Your task to perform on an android device: Go to internet settings Image 0: 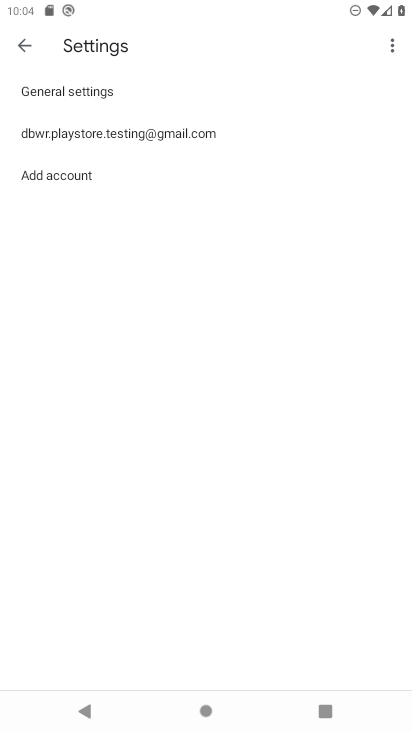
Step 0: press home button
Your task to perform on an android device: Go to internet settings Image 1: 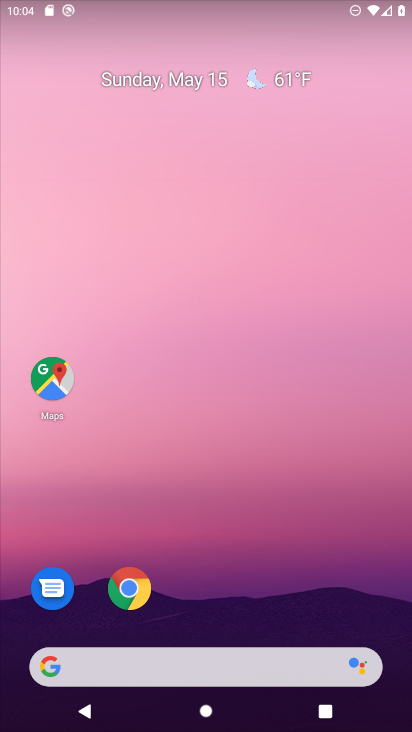
Step 1: drag from (213, 570) to (309, 14)
Your task to perform on an android device: Go to internet settings Image 2: 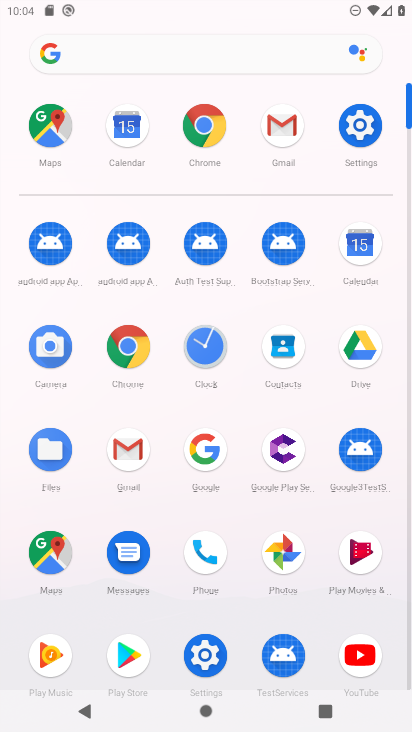
Step 2: click (371, 137)
Your task to perform on an android device: Go to internet settings Image 3: 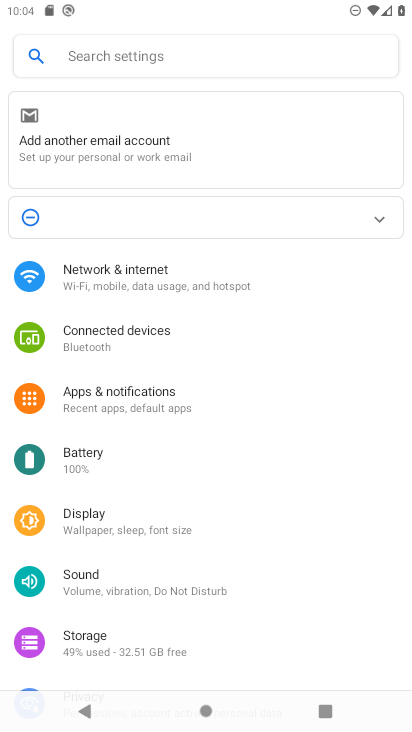
Step 3: click (155, 293)
Your task to perform on an android device: Go to internet settings Image 4: 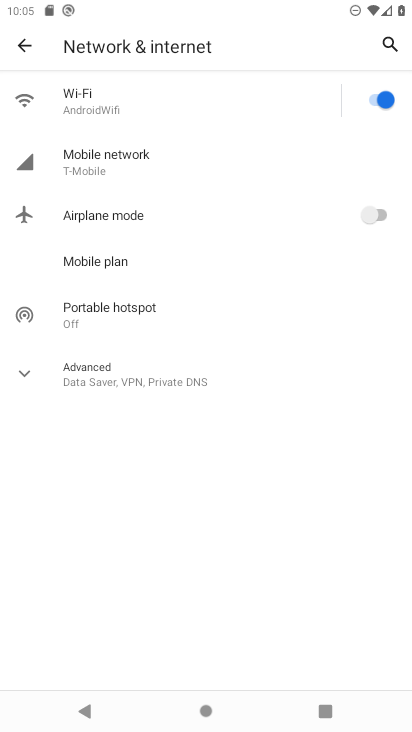
Step 4: task complete